Your task to perform on an android device: stop showing notifications on the lock screen Image 0: 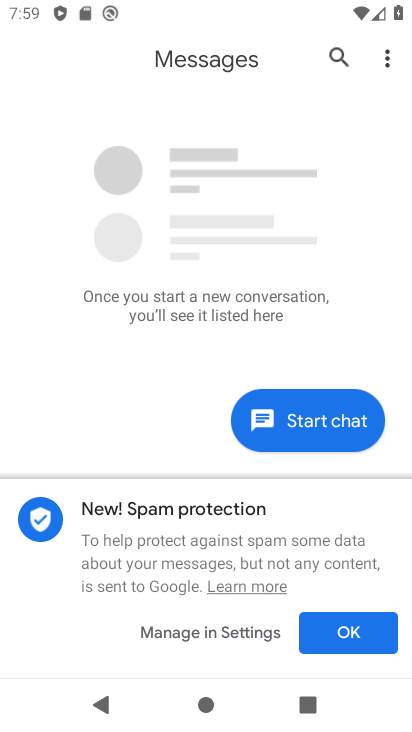
Step 0: press home button
Your task to perform on an android device: stop showing notifications on the lock screen Image 1: 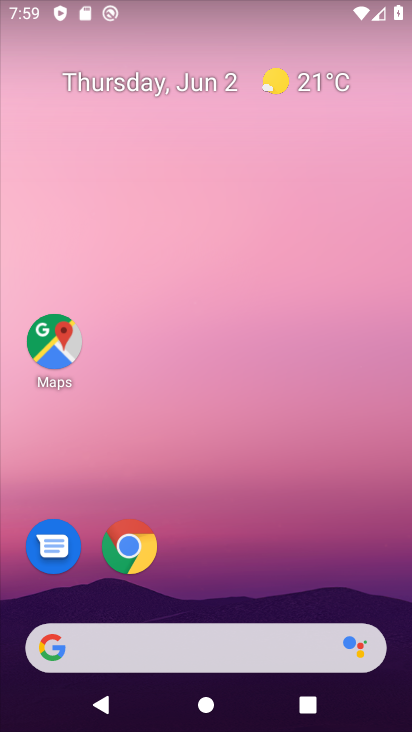
Step 1: drag from (277, 539) to (230, 14)
Your task to perform on an android device: stop showing notifications on the lock screen Image 2: 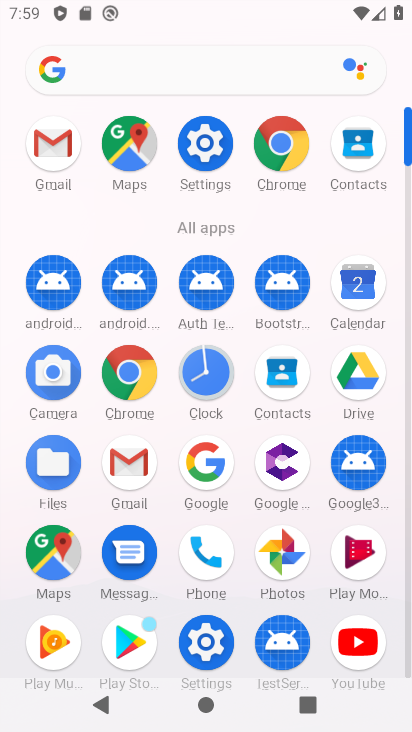
Step 2: click (196, 128)
Your task to perform on an android device: stop showing notifications on the lock screen Image 3: 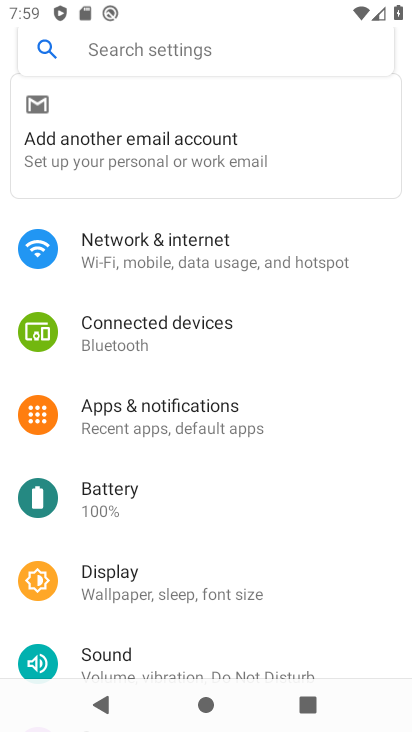
Step 3: click (219, 403)
Your task to perform on an android device: stop showing notifications on the lock screen Image 4: 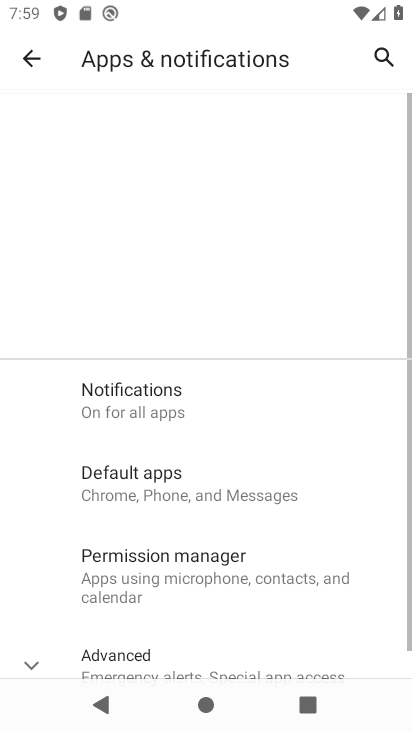
Step 4: click (216, 396)
Your task to perform on an android device: stop showing notifications on the lock screen Image 5: 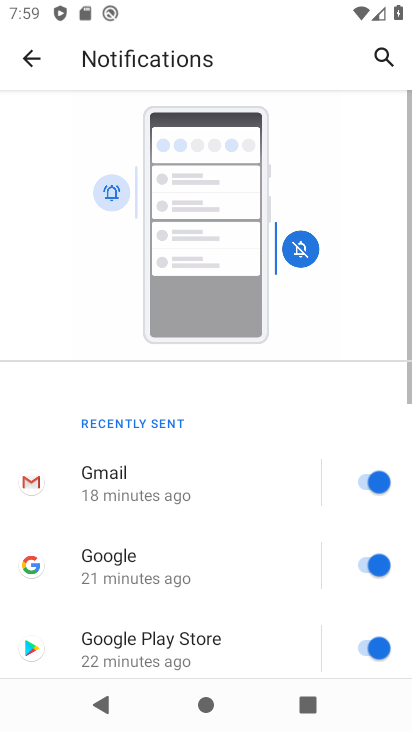
Step 5: drag from (223, 435) to (260, 8)
Your task to perform on an android device: stop showing notifications on the lock screen Image 6: 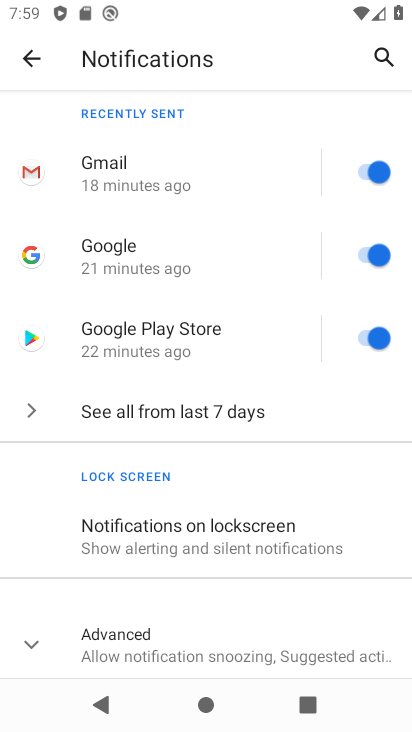
Step 6: click (290, 527)
Your task to perform on an android device: stop showing notifications on the lock screen Image 7: 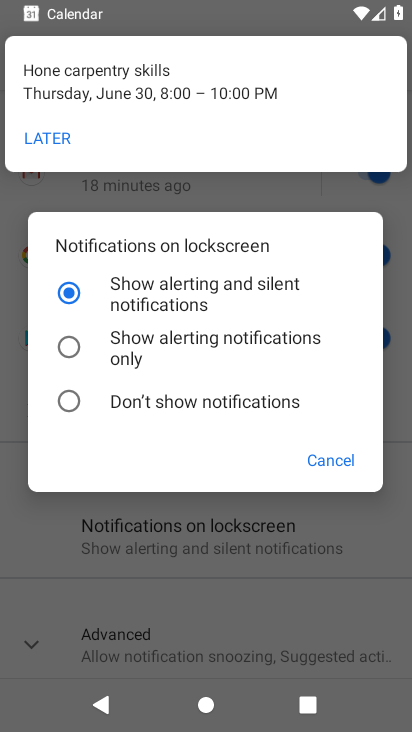
Step 7: click (70, 397)
Your task to perform on an android device: stop showing notifications on the lock screen Image 8: 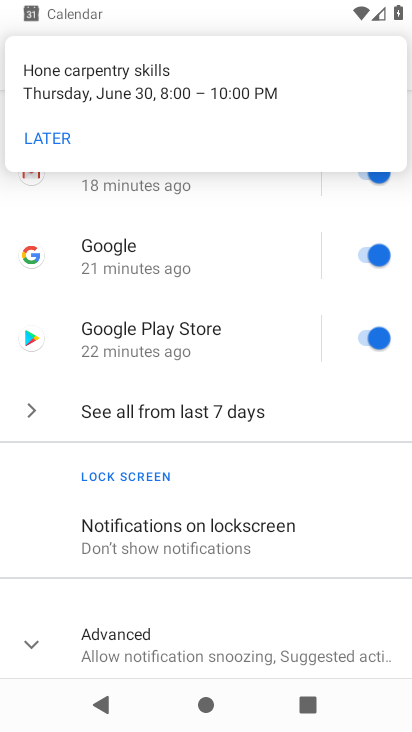
Step 8: task complete